Your task to perform on an android device: allow cookies in the chrome app Image 0: 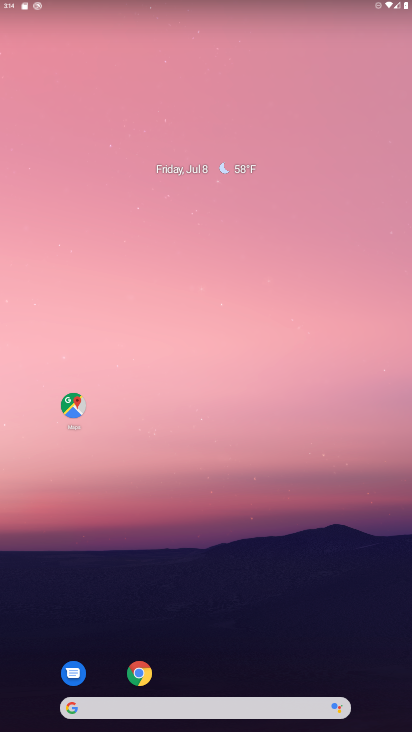
Step 0: click (146, 672)
Your task to perform on an android device: allow cookies in the chrome app Image 1: 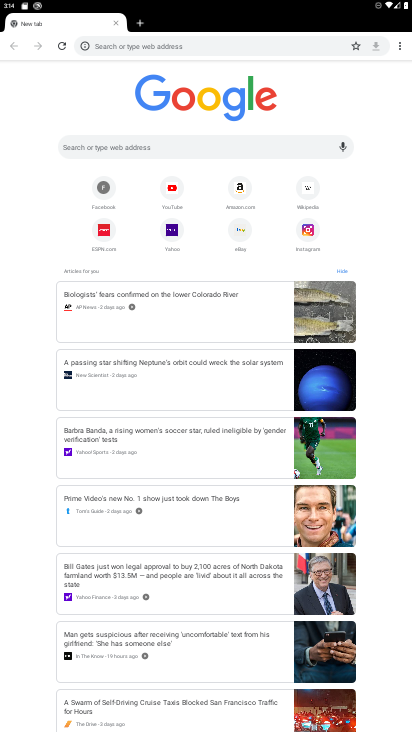
Step 1: click (400, 46)
Your task to perform on an android device: allow cookies in the chrome app Image 2: 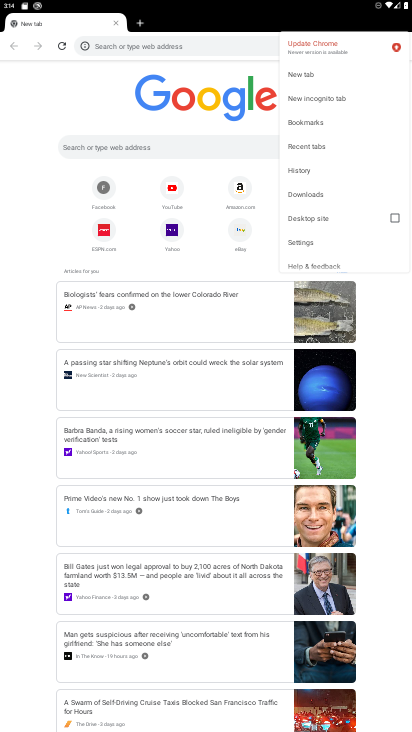
Step 2: click (304, 235)
Your task to perform on an android device: allow cookies in the chrome app Image 3: 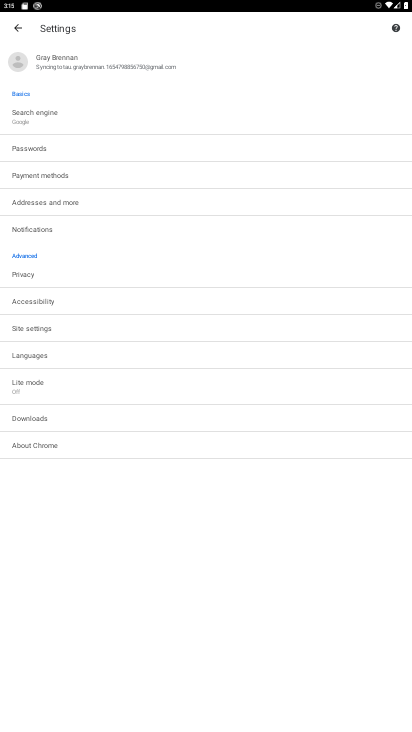
Step 3: click (34, 328)
Your task to perform on an android device: allow cookies in the chrome app Image 4: 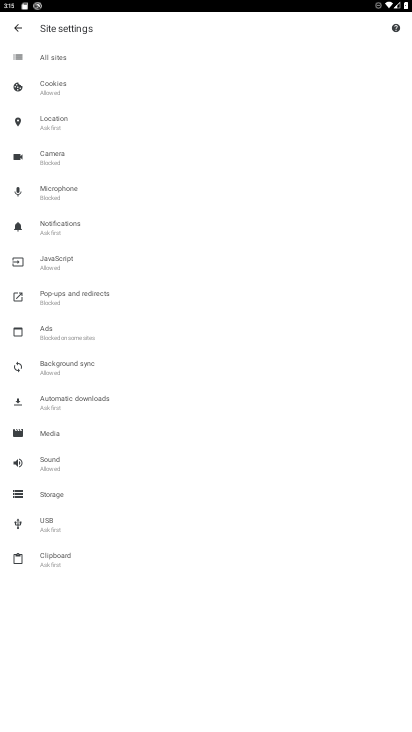
Step 4: click (55, 90)
Your task to perform on an android device: allow cookies in the chrome app Image 5: 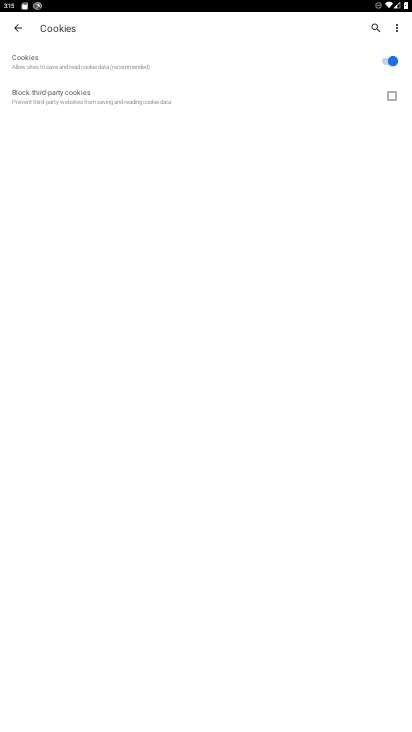
Step 5: task complete